Your task to perform on an android device: toggle notifications settings in the gmail app Image 0: 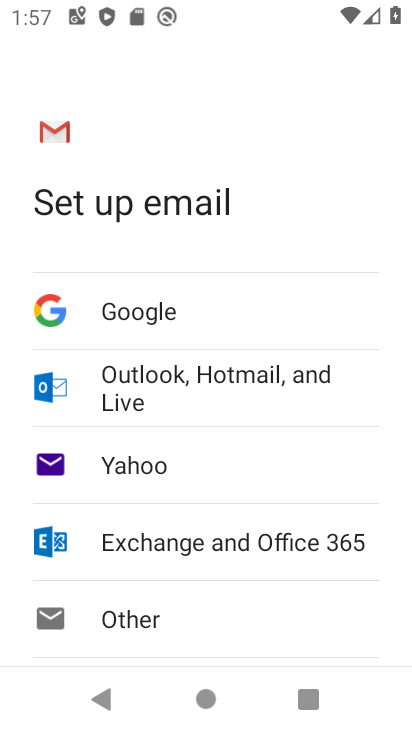
Step 0: press home button
Your task to perform on an android device: toggle notifications settings in the gmail app Image 1: 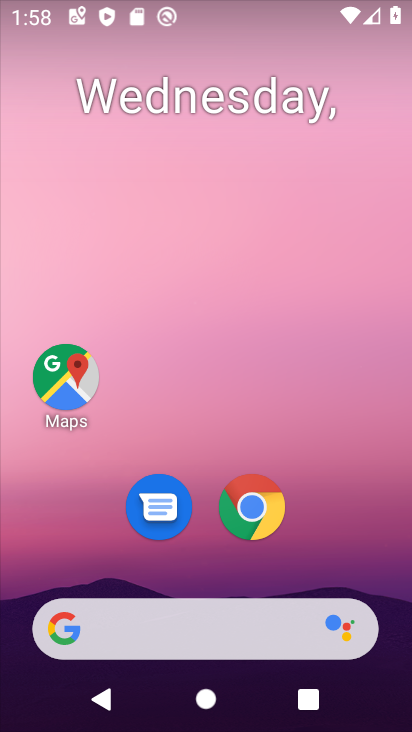
Step 1: drag from (310, 485) to (308, 152)
Your task to perform on an android device: toggle notifications settings in the gmail app Image 2: 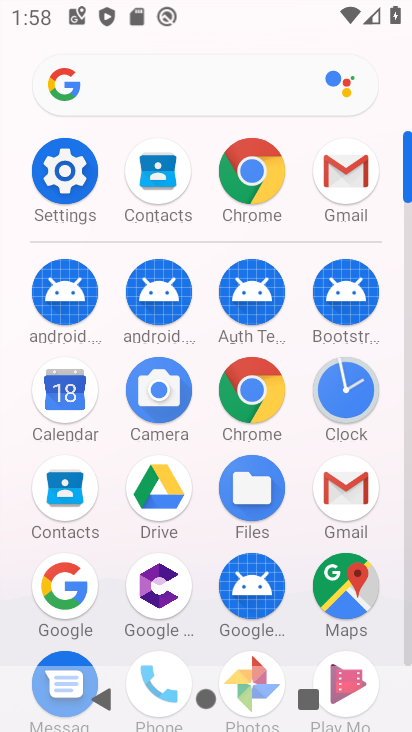
Step 2: click (341, 481)
Your task to perform on an android device: toggle notifications settings in the gmail app Image 3: 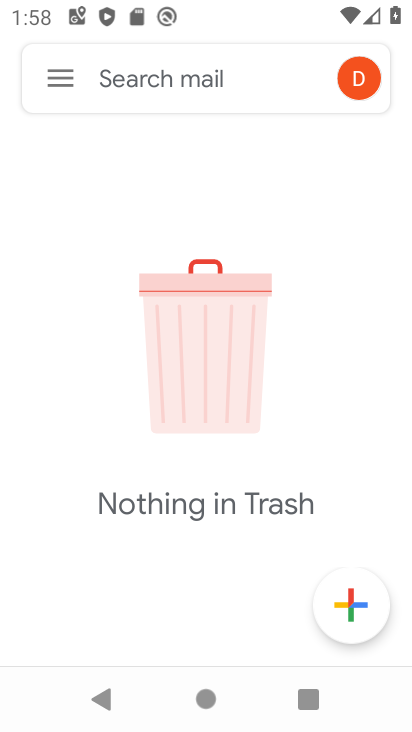
Step 3: click (60, 87)
Your task to perform on an android device: toggle notifications settings in the gmail app Image 4: 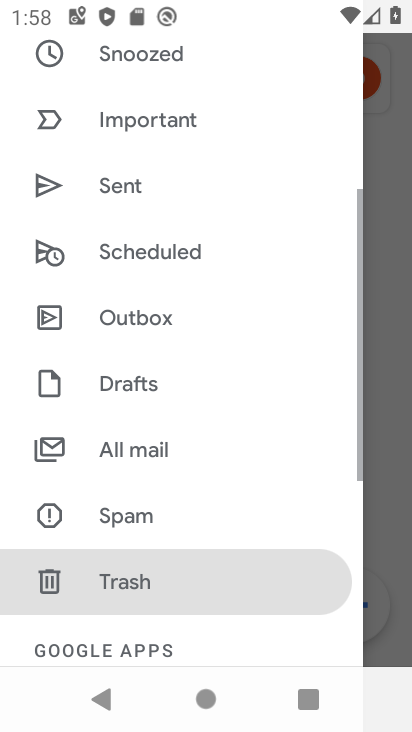
Step 4: drag from (165, 556) to (216, 255)
Your task to perform on an android device: toggle notifications settings in the gmail app Image 5: 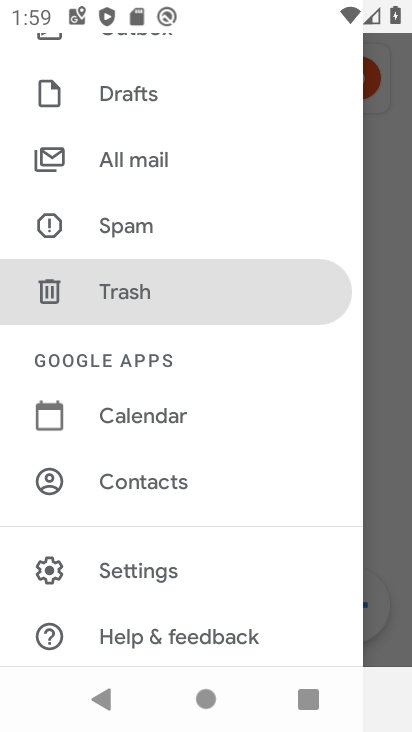
Step 5: click (218, 558)
Your task to perform on an android device: toggle notifications settings in the gmail app Image 6: 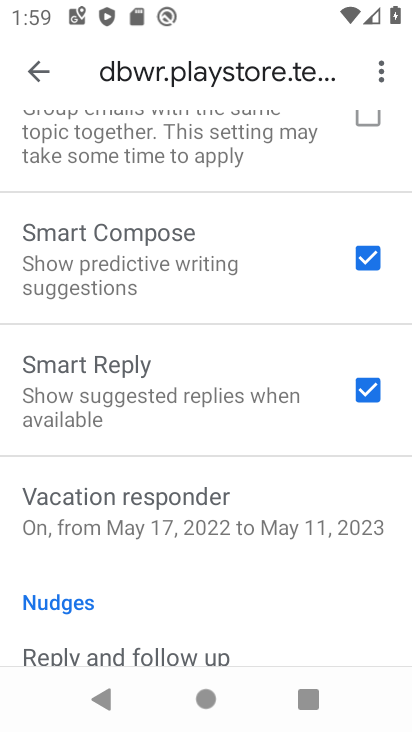
Step 6: drag from (222, 316) to (244, 653)
Your task to perform on an android device: toggle notifications settings in the gmail app Image 7: 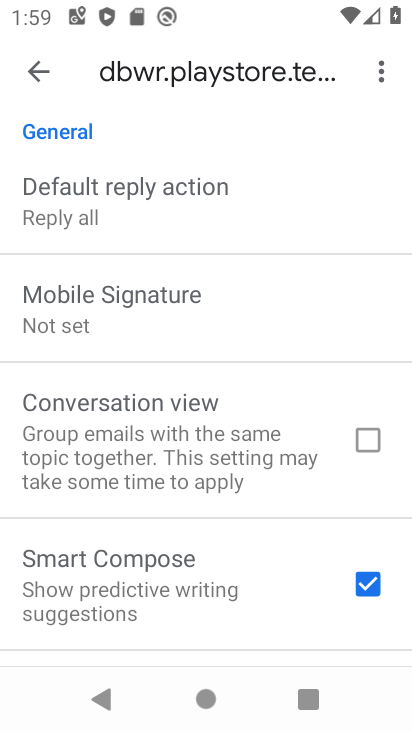
Step 7: drag from (198, 505) to (199, 615)
Your task to perform on an android device: toggle notifications settings in the gmail app Image 8: 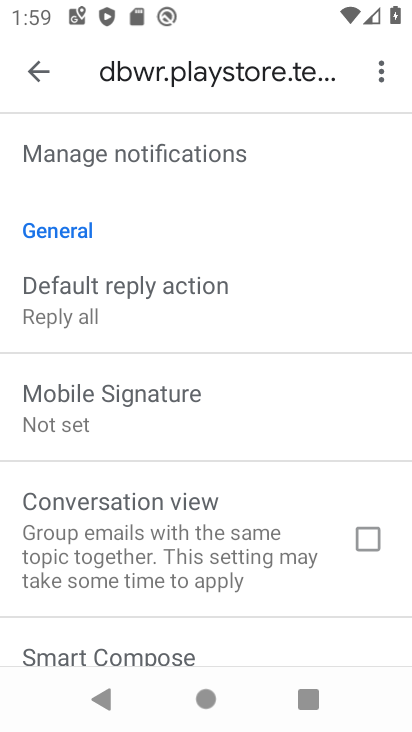
Step 8: drag from (205, 250) to (217, 643)
Your task to perform on an android device: toggle notifications settings in the gmail app Image 9: 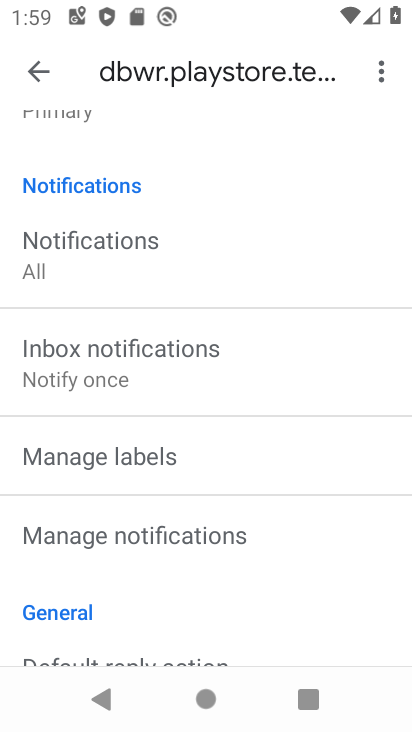
Step 9: click (192, 254)
Your task to perform on an android device: toggle notifications settings in the gmail app Image 10: 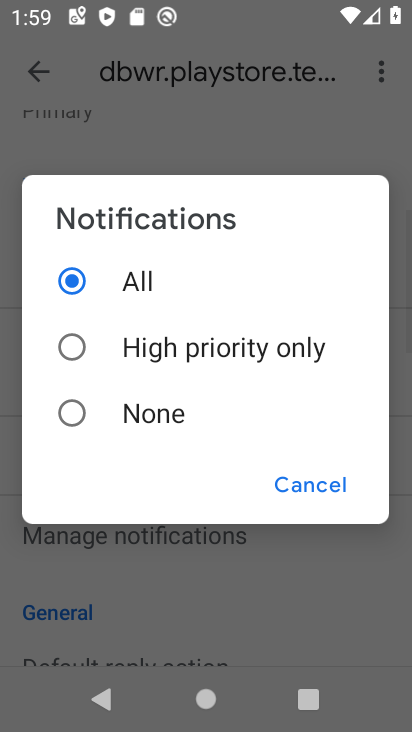
Step 10: click (171, 426)
Your task to perform on an android device: toggle notifications settings in the gmail app Image 11: 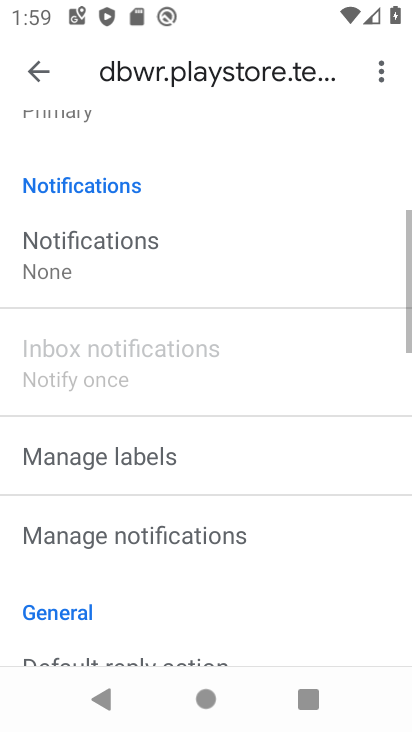
Step 11: task complete